Your task to perform on an android device: uninstall "HBO Max: Stream TV & Movies" Image 0: 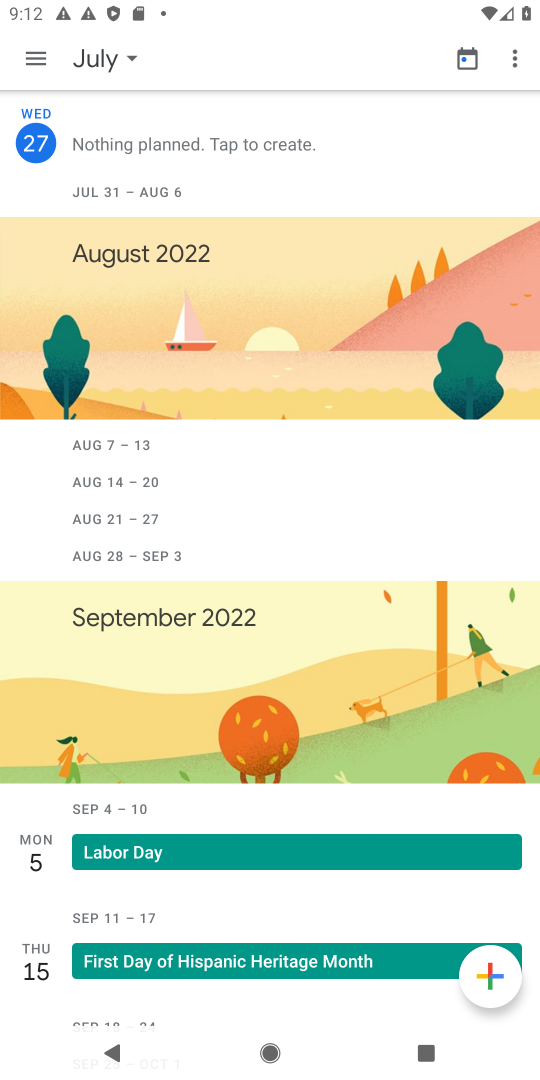
Step 0: press home button
Your task to perform on an android device: uninstall "HBO Max: Stream TV & Movies" Image 1: 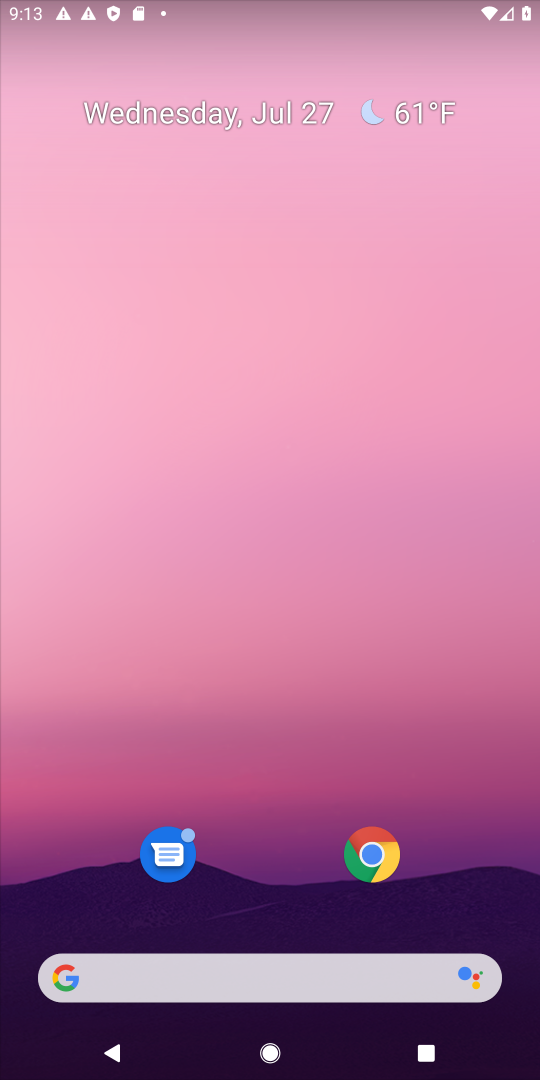
Step 1: drag from (244, 883) to (241, 191)
Your task to perform on an android device: uninstall "HBO Max: Stream TV & Movies" Image 2: 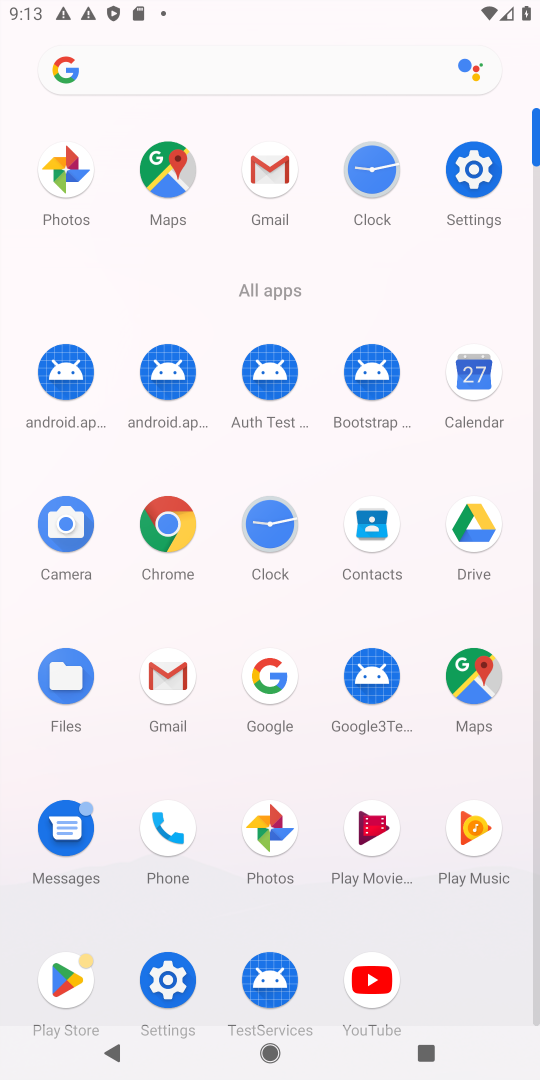
Step 2: click (379, 974)
Your task to perform on an android device: uninstall "HBO Max: Stream TV & Movies" Image 3: 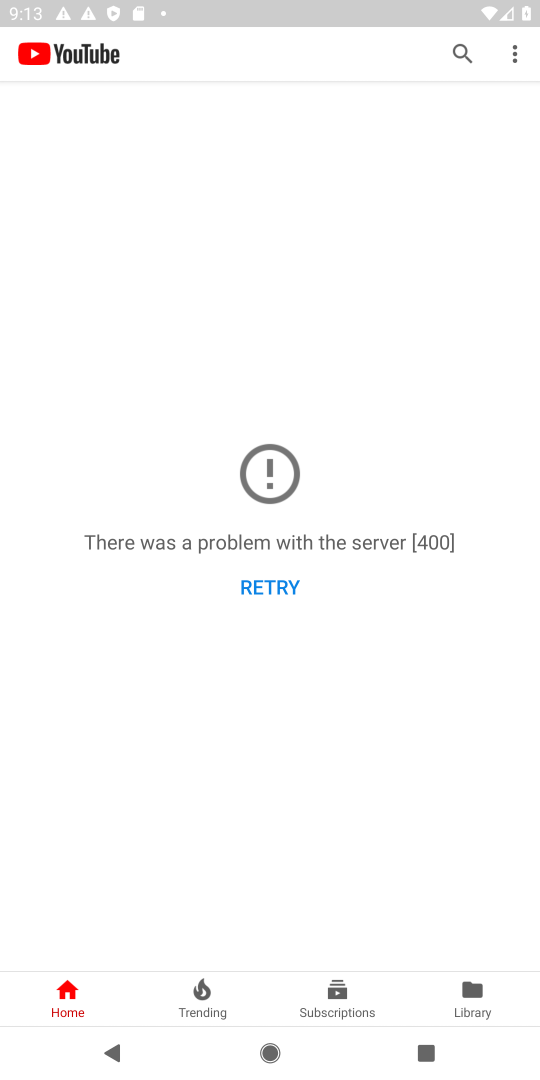
Step 3: press home button
Your task to perform on an android device: uninstall "HBO Max: Stream TV & Movies" Image 4: 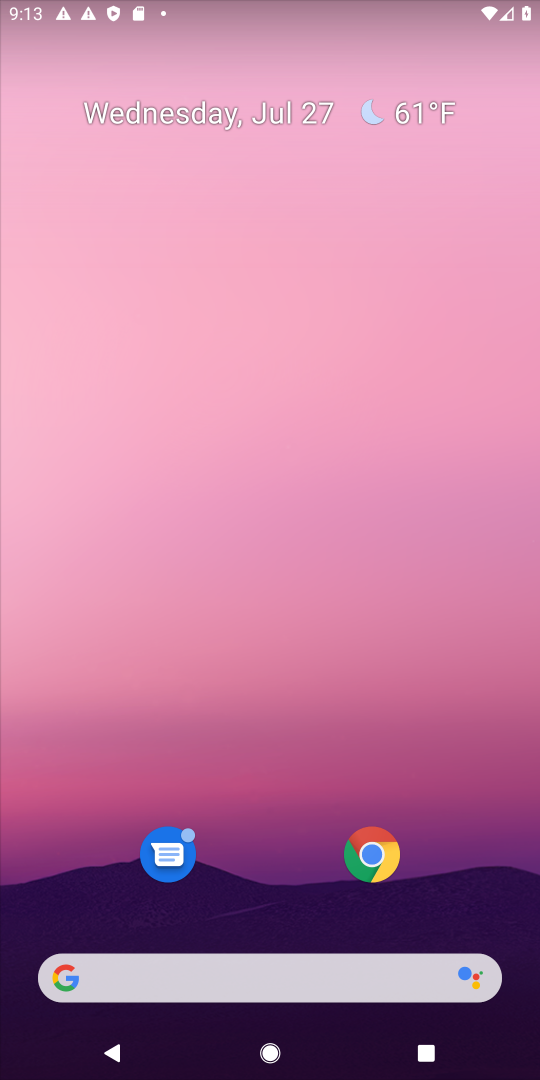
Step 4: drag from (246, 805) to (331, 109)
Your task to perform on an android device: uninstall "HBO Max: Stream TV & Movies" Image 5: 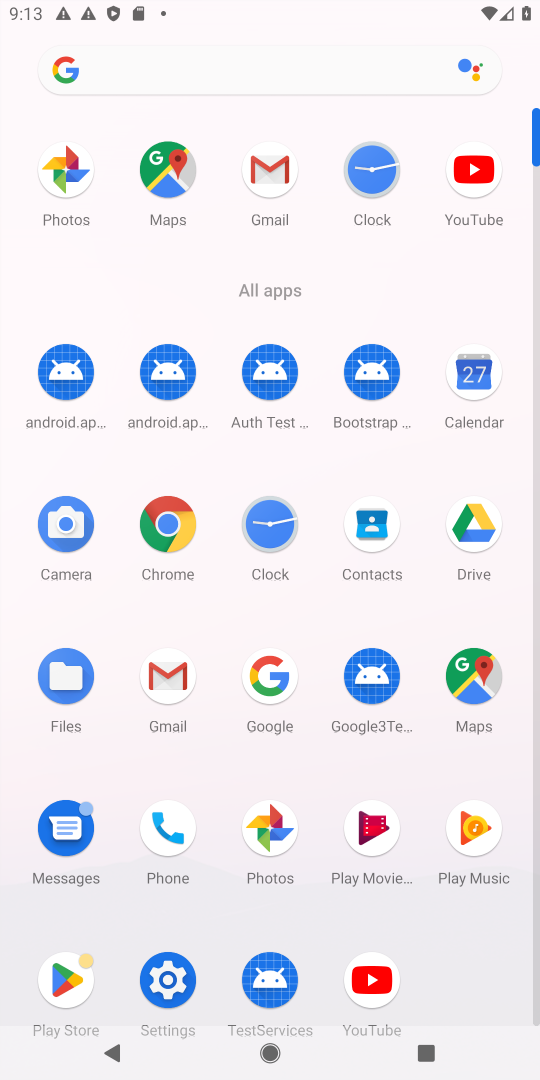
Step 5: click (53, 984)
Your task to perform on an android device: uninstall "HBO Max: Stream TV & Movies" Image 6: 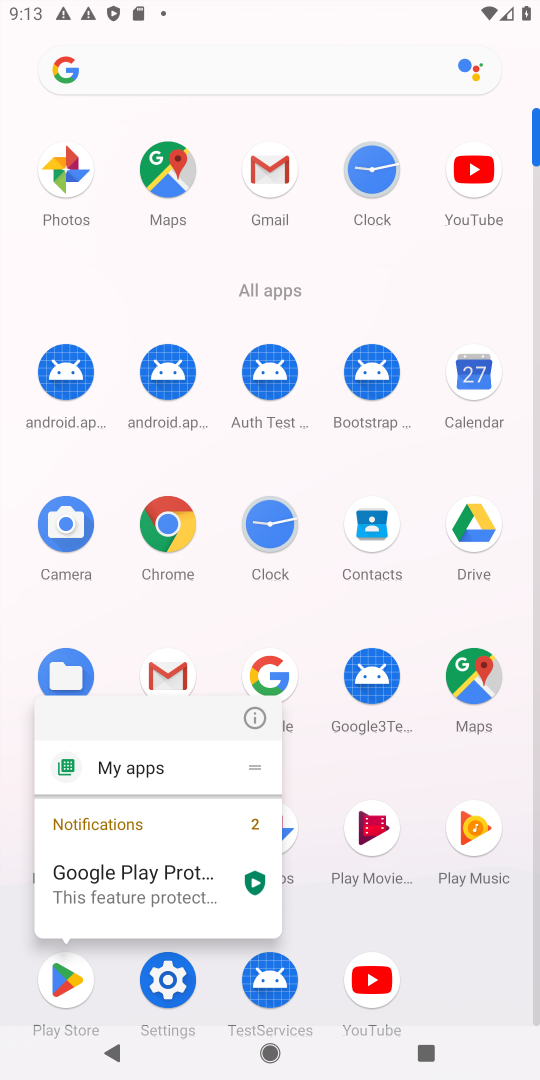
Step 6: click (56, 999)
Your task to perform on an android device: uninstall "HBO Max: Stream TV & Movies" Image 7: 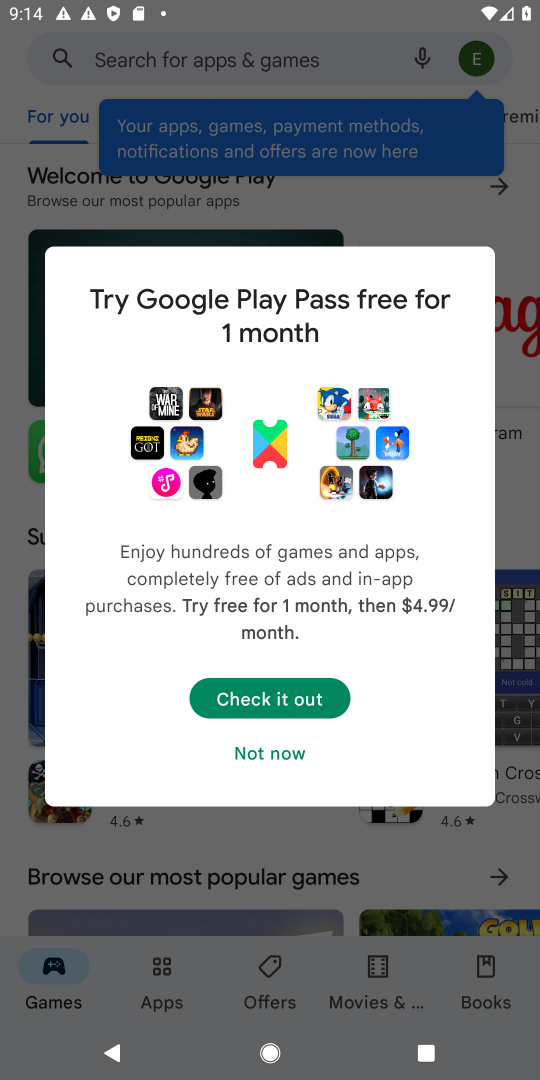
Step 7: click (280, 754)
Your task to perform on an android device: uninstall "HBO Max: Stream TV & Movies" Image 8: 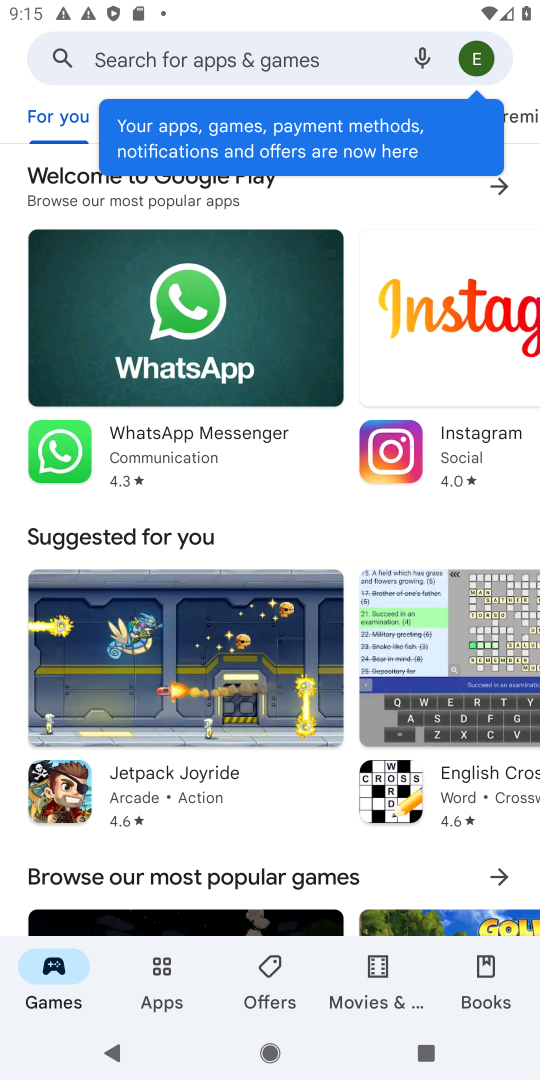
Step 8: click (233, 57)
Your task to perform on an android device: uninstall "HBO Max: Stream TV & Movies" Image 9: 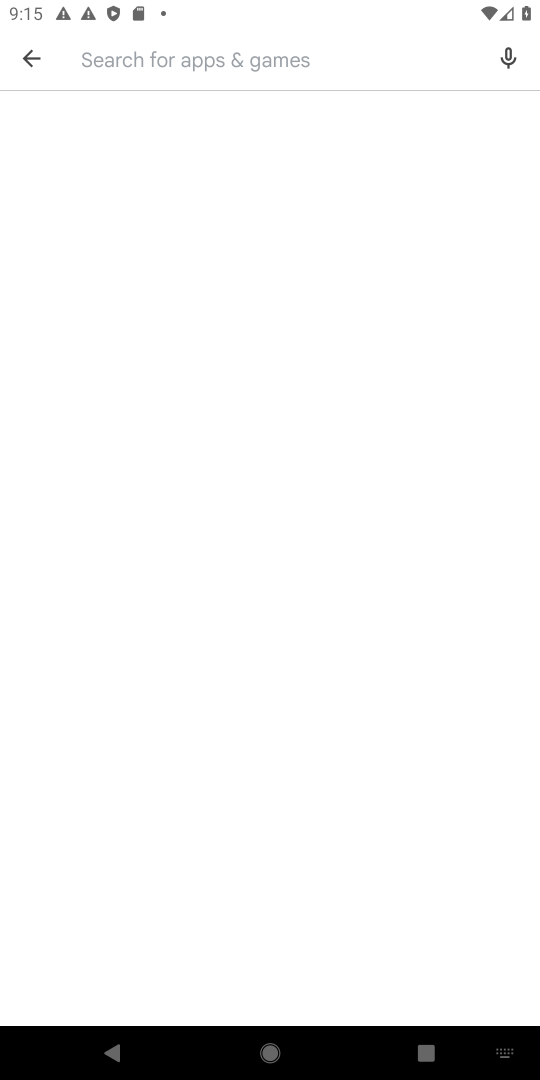
Step 9: type "HBO Max: Stream TV & Movies"
Your task to perform on an android device: uninstall "HBO Max: Stream TV & Movies" Image 10: 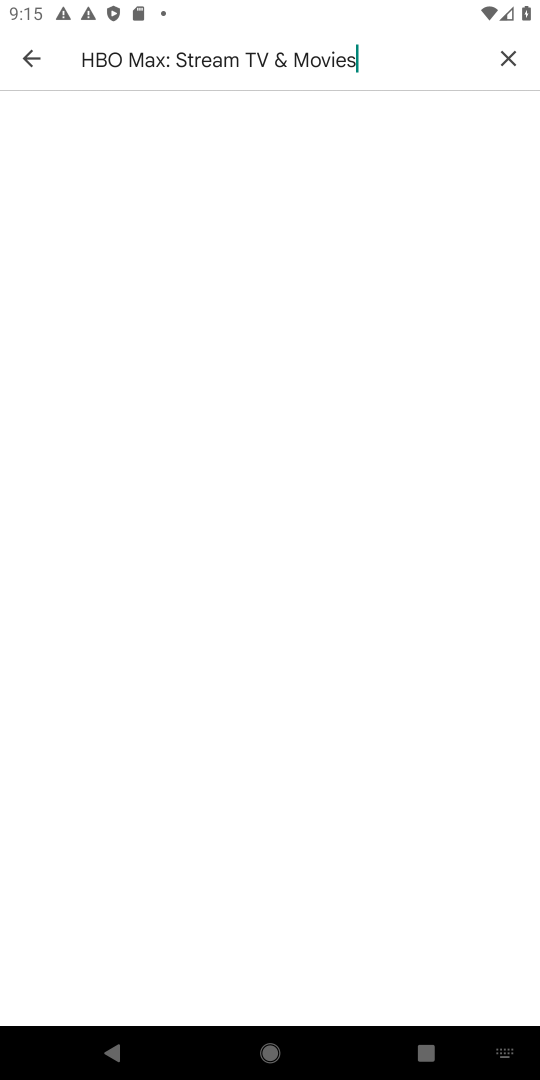
Step 10: type ""
Your task to perform on an android device: uninstall "HBO Max: Stream TV & Movies" Image 11: 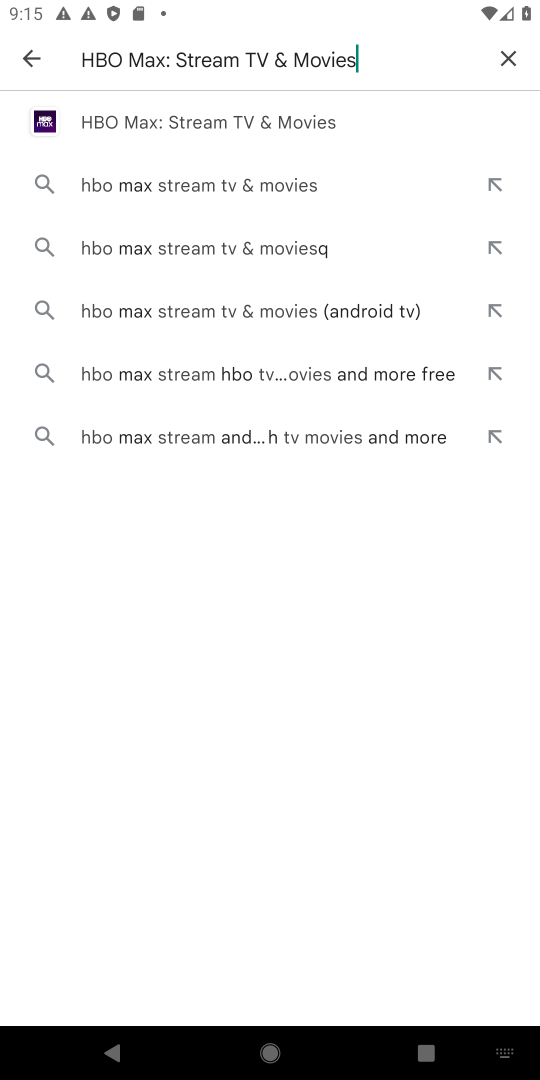
Step 11: click (214, 129)
Your task to perform on an android device: uninstall "HBO Max: Stream TV & Movies" Image 12: 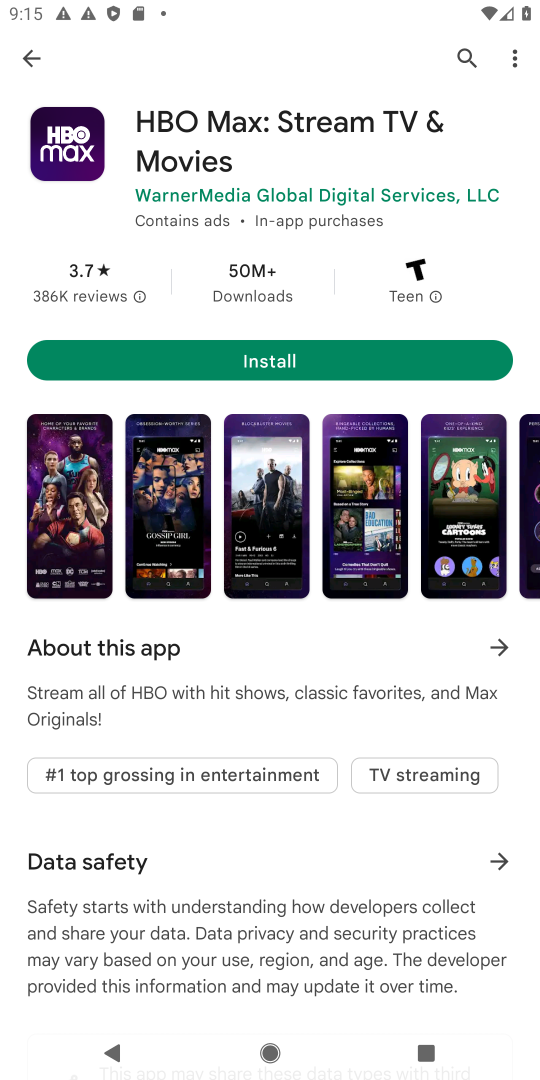
Step 12: task complete